Your task to perform on an android device: turn off airplane mode Image 0: 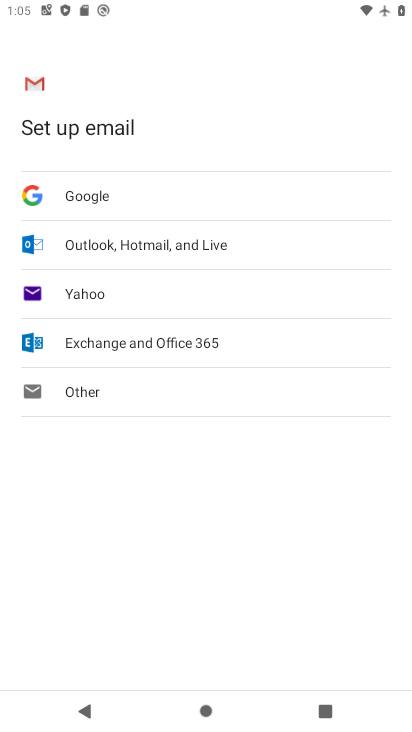
Step 0: press home button
Your task to perform on an android device: turn off airplane mode Image 1: 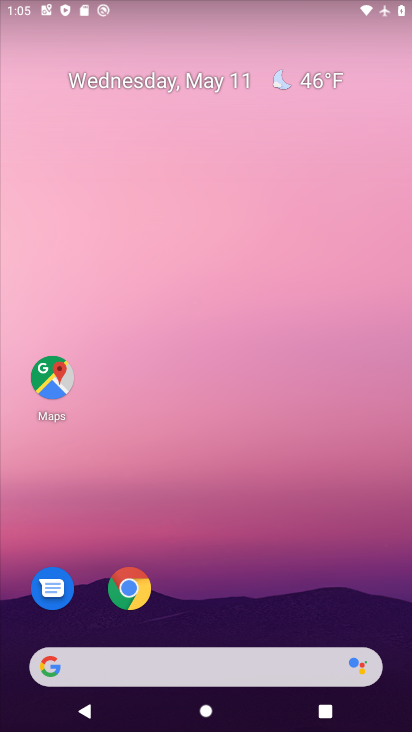
Step 1: drag from (301, 557) to (353, 182)
Your task to perform on an android device: turn off airplane mode Image 2: 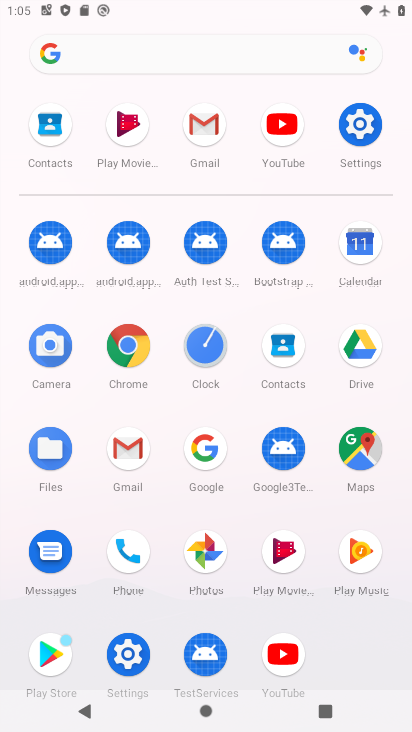
Step 2: click (356, 126)
Your task to perform on an android device: turn off airplane mode Image 3: 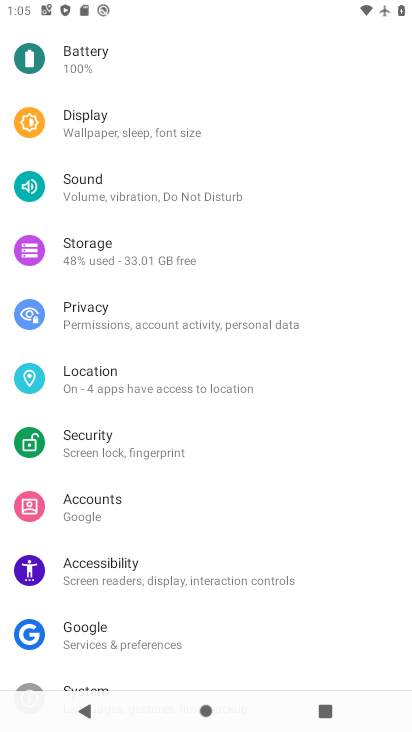
Step 3: drag from (240, 113) to (237, 621)
Your task to perform on an android device: turn off airplane mode Image 4: 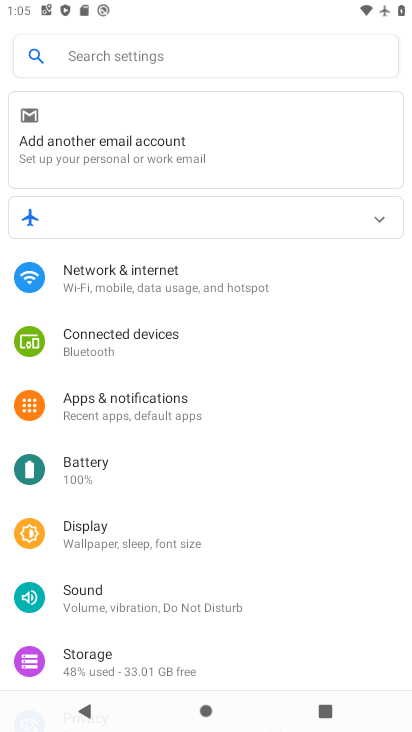
Step 4: click (190, 271)
Your task to perform on an android device: turn off airplane mode Image 5: 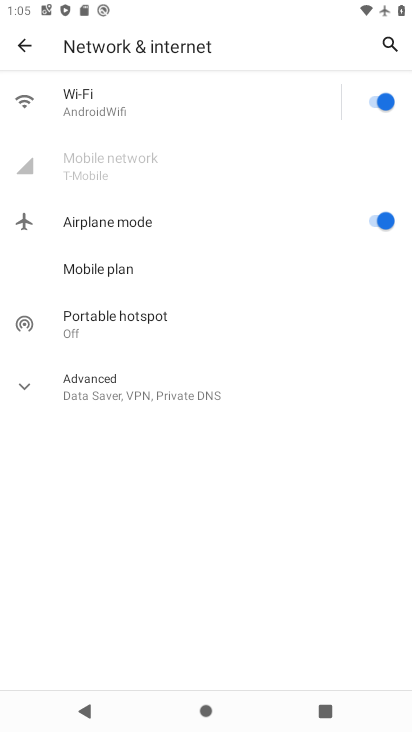
Step 5: click (378, 218)
Your task to perform on an android device: turn off airplane mode Image 6: 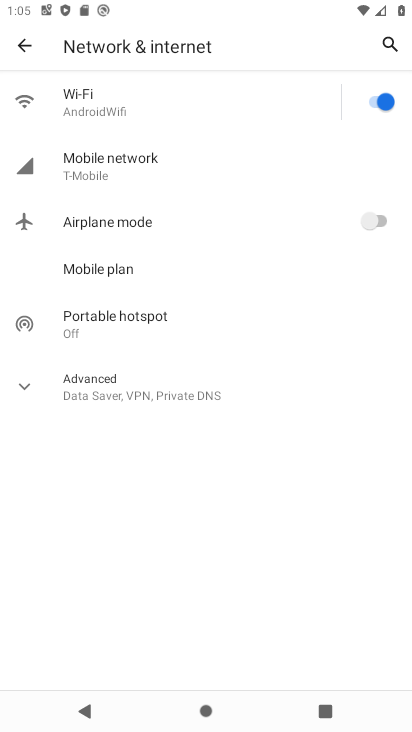
Step 6: task complete